Your task to perform on an android device: Go to display settings Image 0: 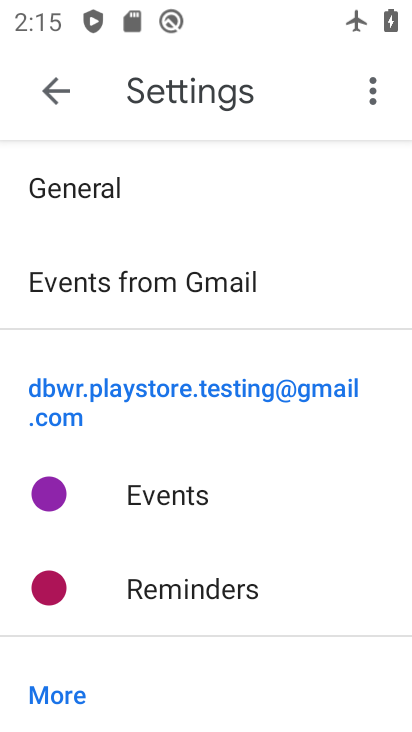
Step 0: press home button
Your task to perform on an android device: Go to display settings Image 1: 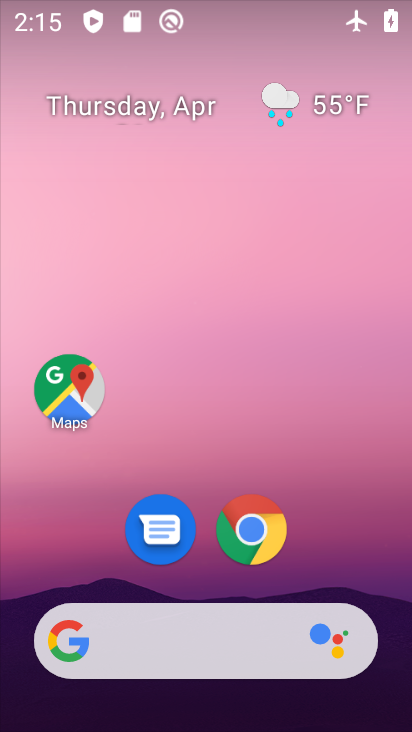
Step 1: click (276, 525)
Your task to perform on an android device: Go to display settings Image 2: 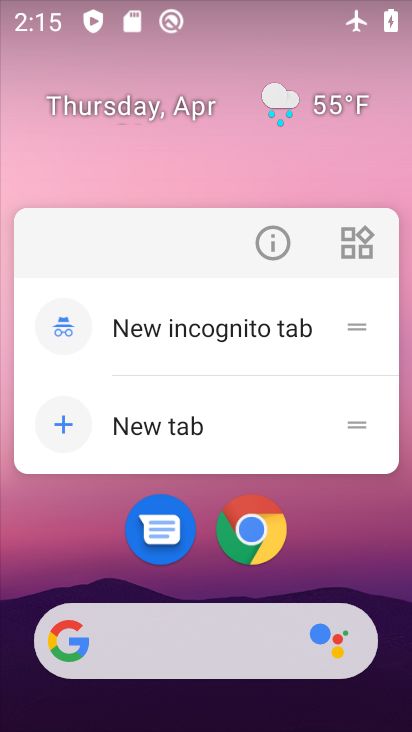
Step 2: click (273, 254)
Your task to perform on an android device: Go to display settings Image 3: 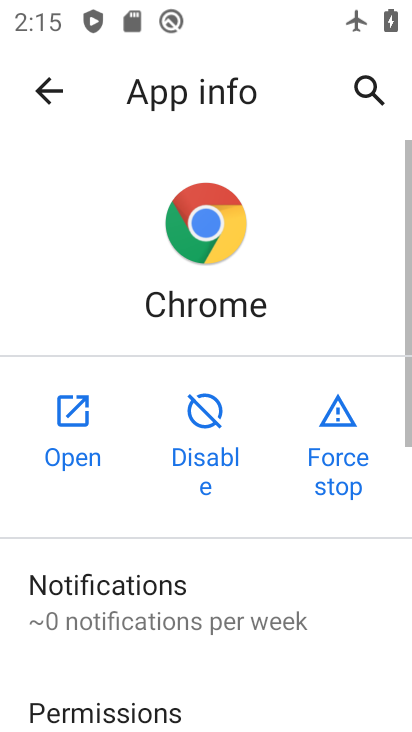
Step 3: click (85, 445)
Your task to perform on an android device: Go to display settings Image 4: 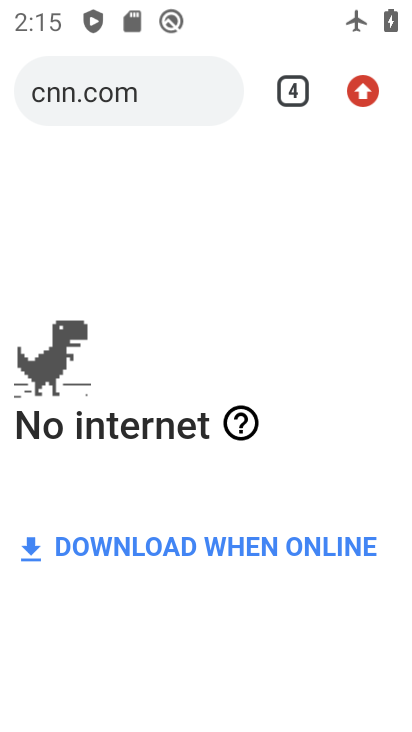
Step 4: press home button
Your task to perform on an android device: Go to display settings Image 5: 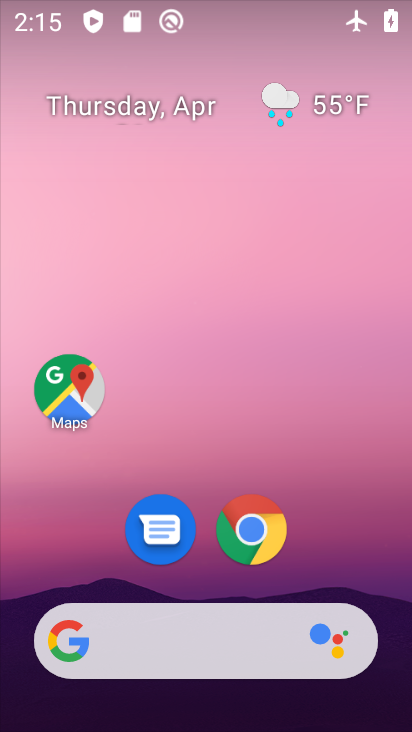
Step 5: drag from (216, 548) to (178, 200)
Your task to perform on an android device: Go to display settings Image 6: 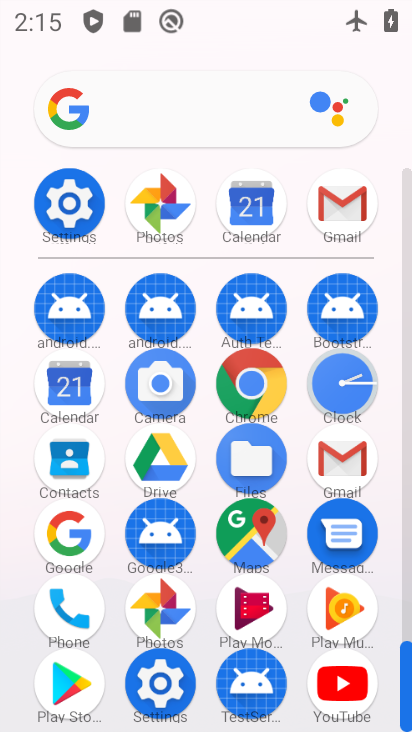
Step 6: click (74, 224)
Your task to perform on an android device: Go to display settings Image 7: 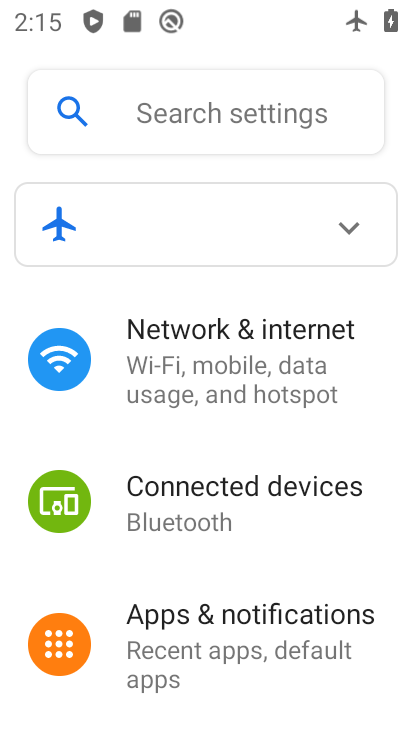
Step 7: drag from (226, 540) to (213, 257)
Your task to perform on an android device: Go to display settings Image 8: 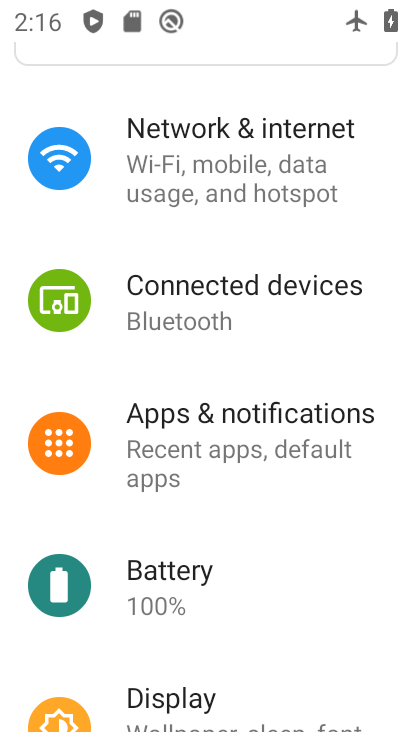
Step 8: click (219, 705)
Your task to perform on an android device: Go to display settings Image 9: 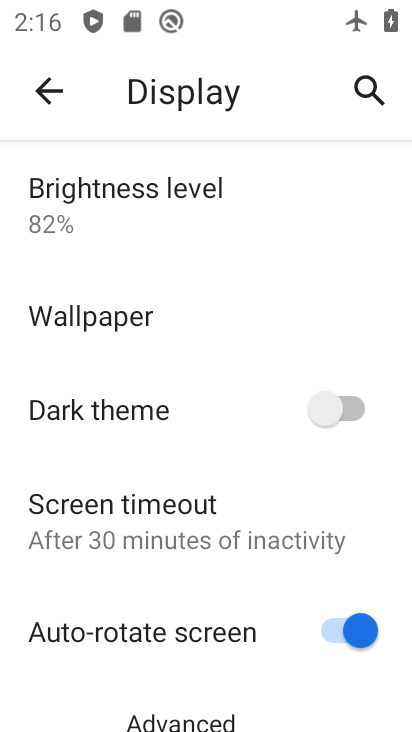
Step 9: task complete